Your task to perform on an android device: Go to calendar. Show me events next week Image 0: 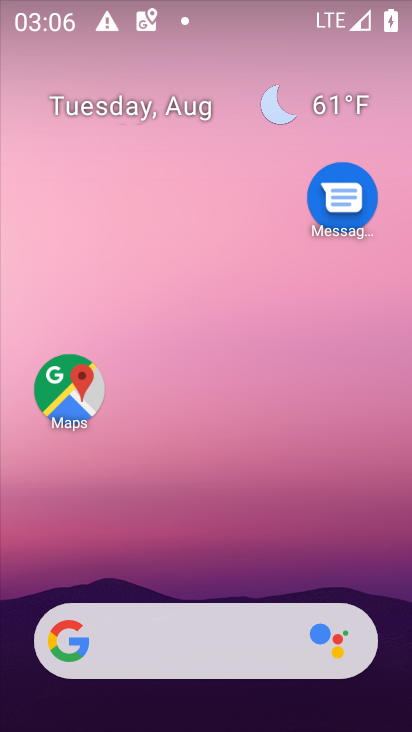
Step 0: drag from (250, 595) to (178, 1)
Your task to perform on an android device: Go to calendar. Show me events next week Image 1: 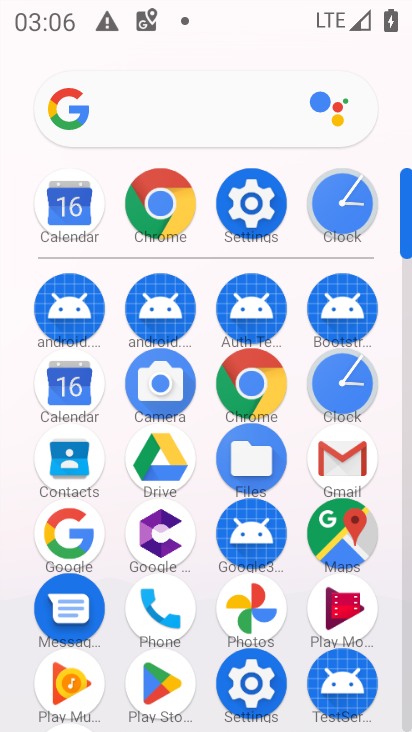
Step 1: click (74, 401)
Your task to perform on an android device: Go to calendar. Show me events next week Image 2: 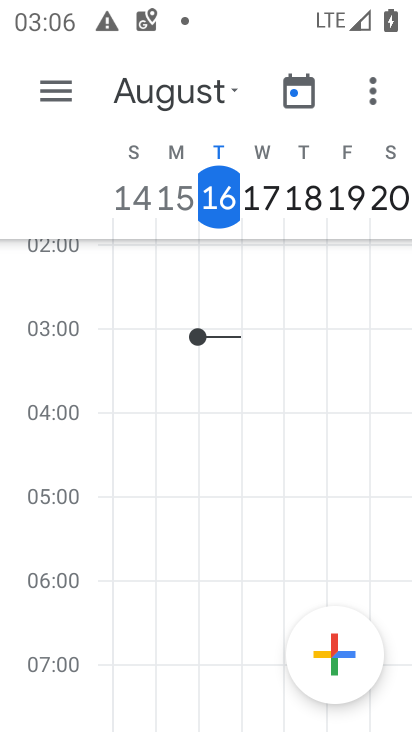
Step 2: task complete